Your task to perform on an android device: turn smart compose on in the gmail app Image 0: 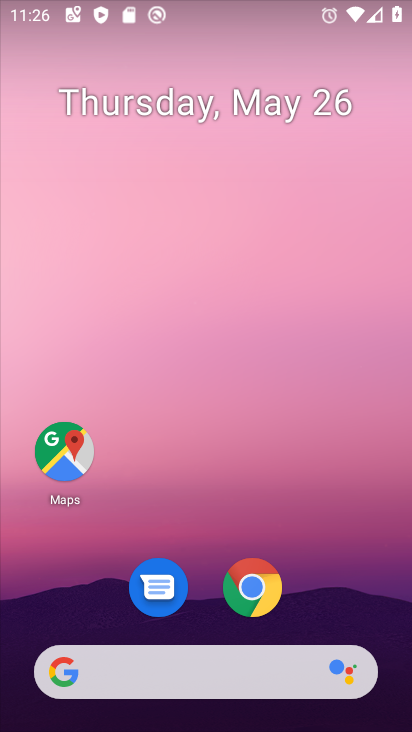
Step 0: drag from (164, 674) to (249, 95)
Your task to perform on an android device: turn smart compose on in the gmail app Image 1: 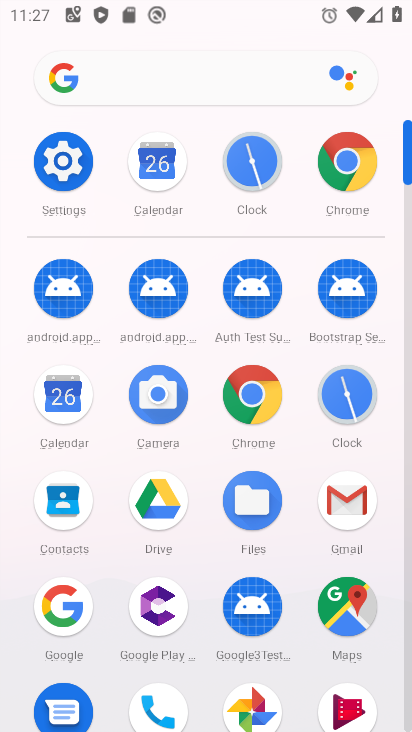
Step 1: click (344, 486)
Your task to perform on an android device: turn smart compose on in the gmail app Image 2: 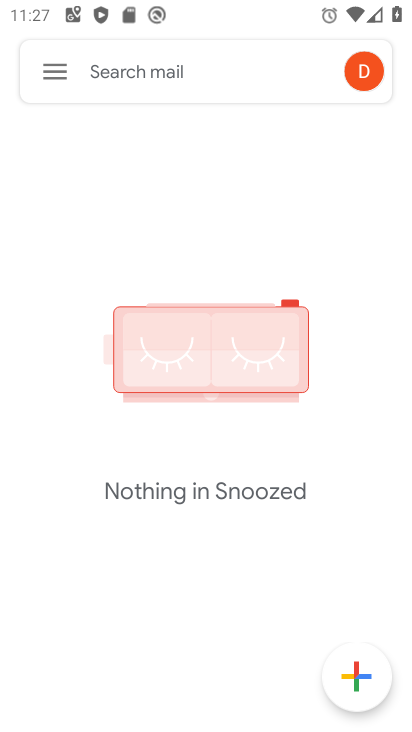
Step 2: click (57, 94)
Your task to perform on an android device: turn smart compose on in the gmail app Image 3: 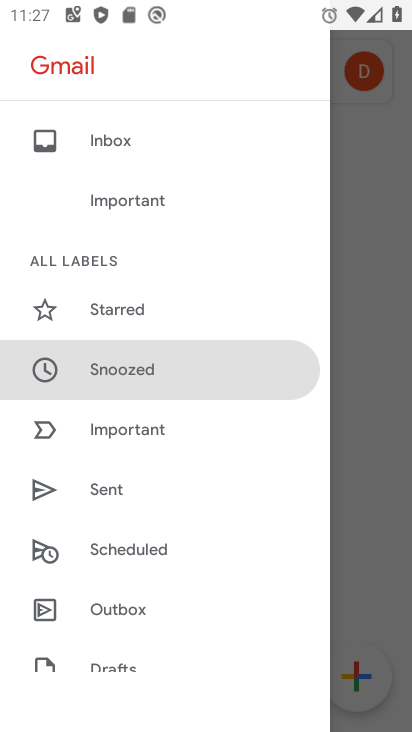
Step 3: drag from (189, 505) to (223, 142)
Your task to perform on an android device: turn smart compose on in the gmail app Image 4: 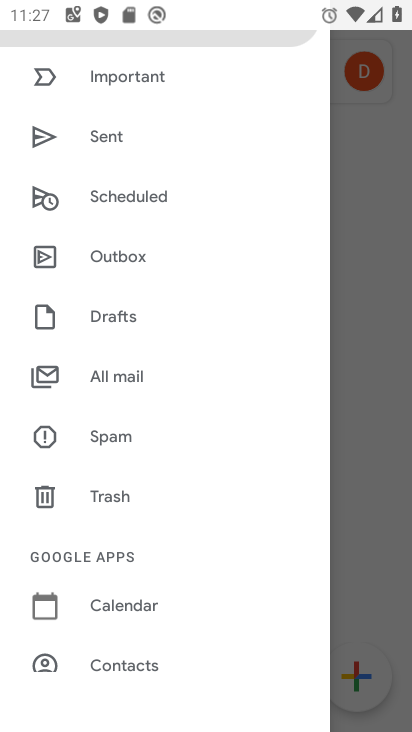
Step 4: drag from (150, 593) to (205, 286)
Your task to perform on an android device: turn smart compose on in the gmail app Image 5: 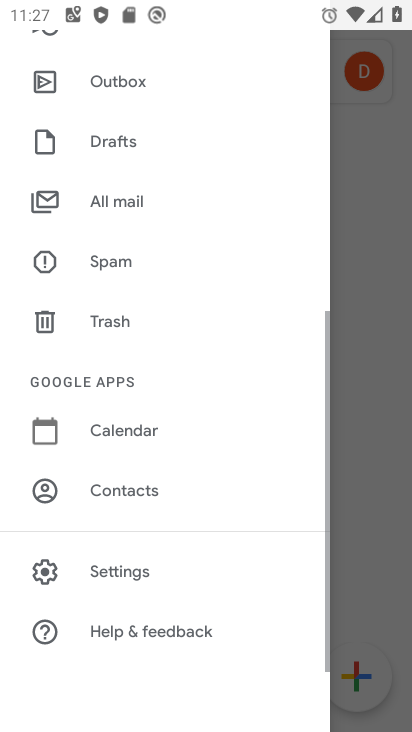
Step 5: click (128, 563)
Your task to perform on an android device: turn smart compose on in the gmail app Image 6: 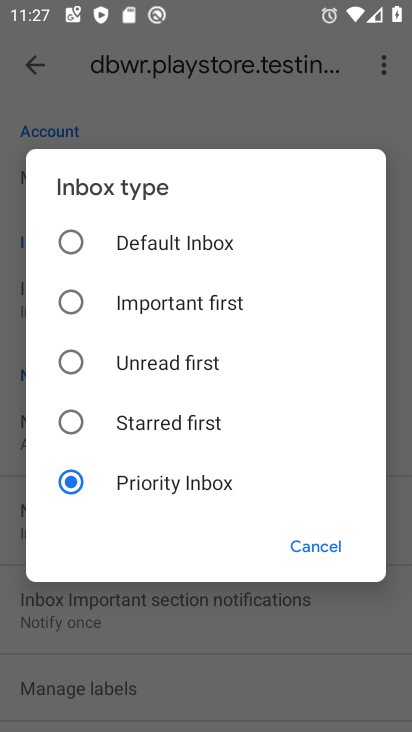
Step 6: click (301, 547)
Your task to perform on an android device: turn smart compose on in the gmail app Image 7: 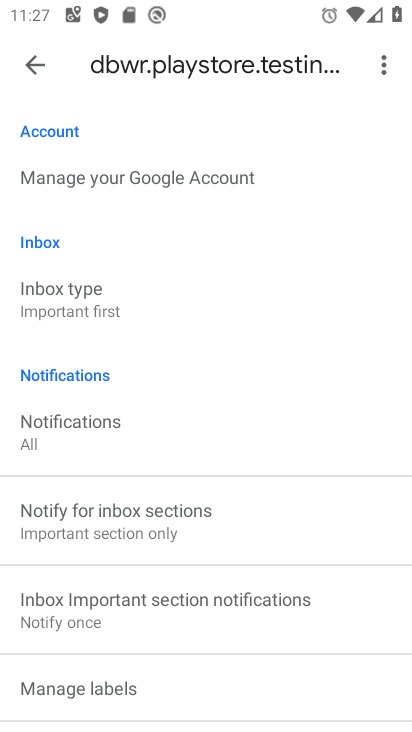
Step 7: drag from (189, 532) to (233, 109)
Your task to perform on an android device: turn smart compose on in the gmail app Image 8: 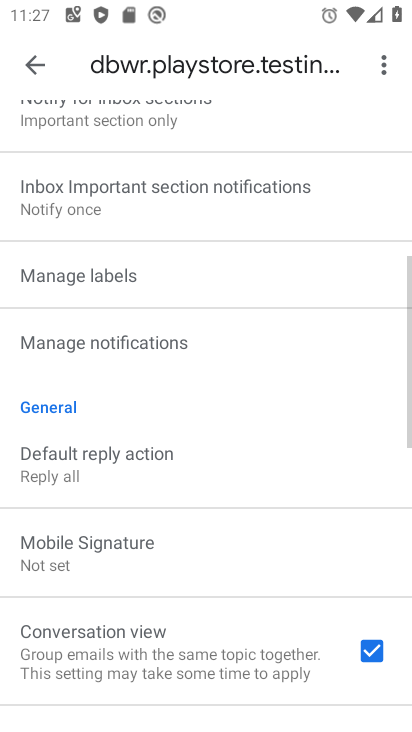
Step 8: drag from (195, 465) to (216, 166)
Your task to perform on an android device: turn smart compose on in the gmail app Image 9: 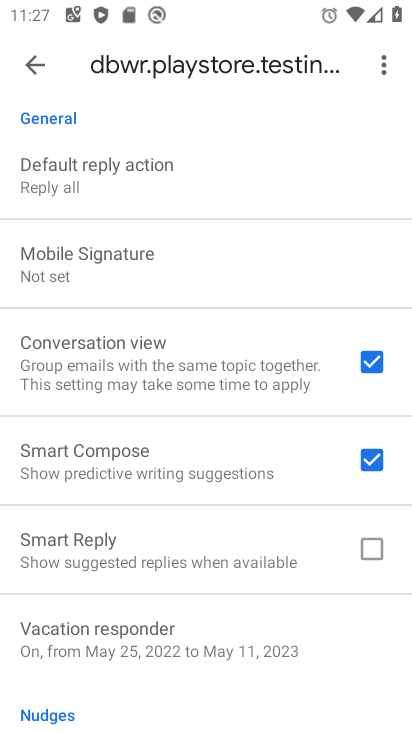
Step 9: click (203, 470)
Your task to perform on an android device: turn smart compose on in the gmail app Image 10: 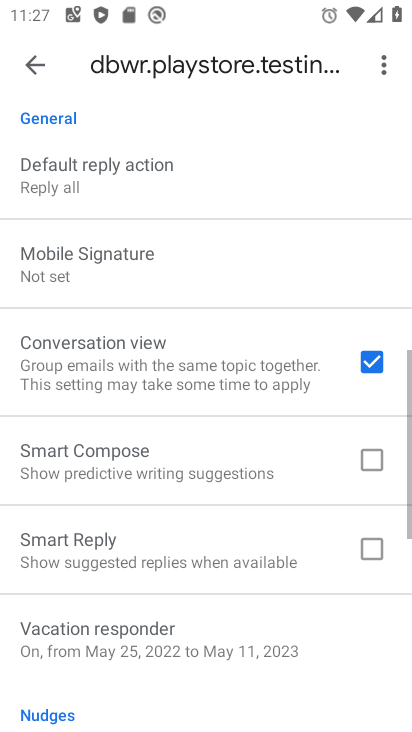
Step 10: click (203, 469)
Your task to perform on an android device: turn smart compose on in the gmail app Image 11: 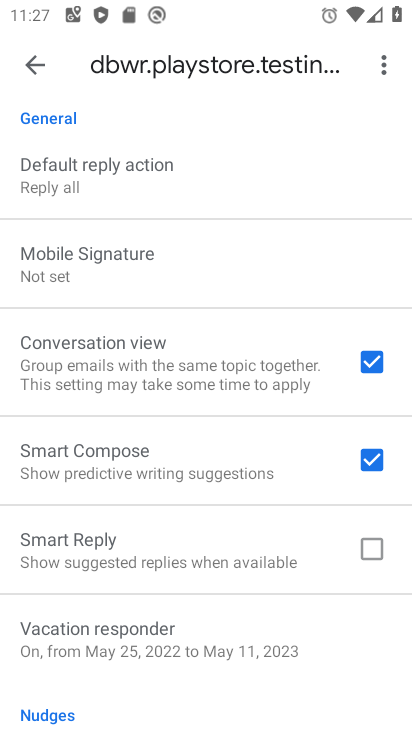
Step 11: task complete